Your task to perform on an android device: turn on location history Image 0: 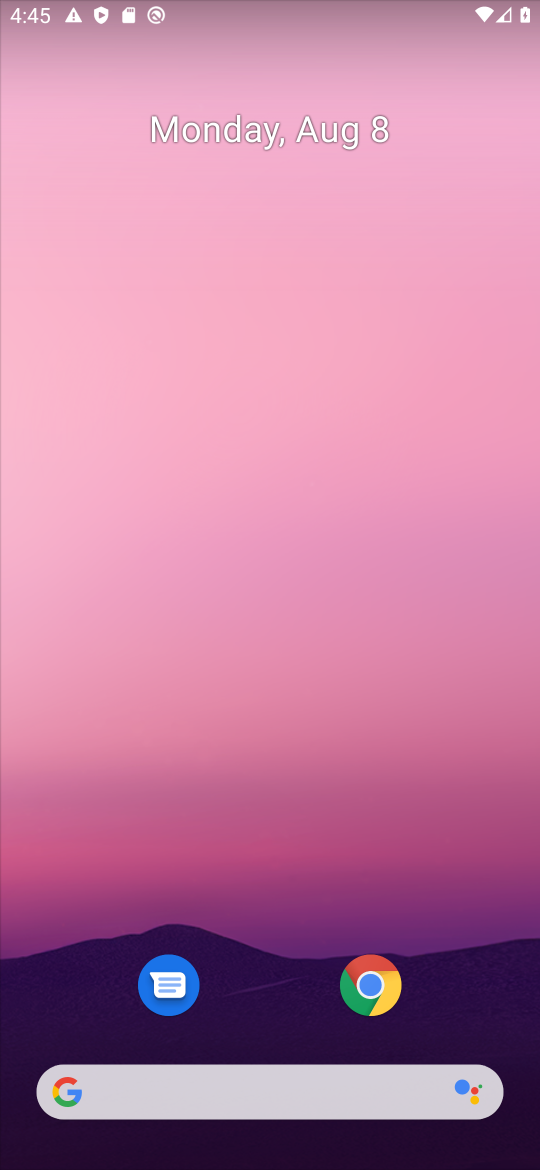
Step 0: drag from (326, 792) to (418, 102)
Your task to perform on an android device: turn on location history Image 1: 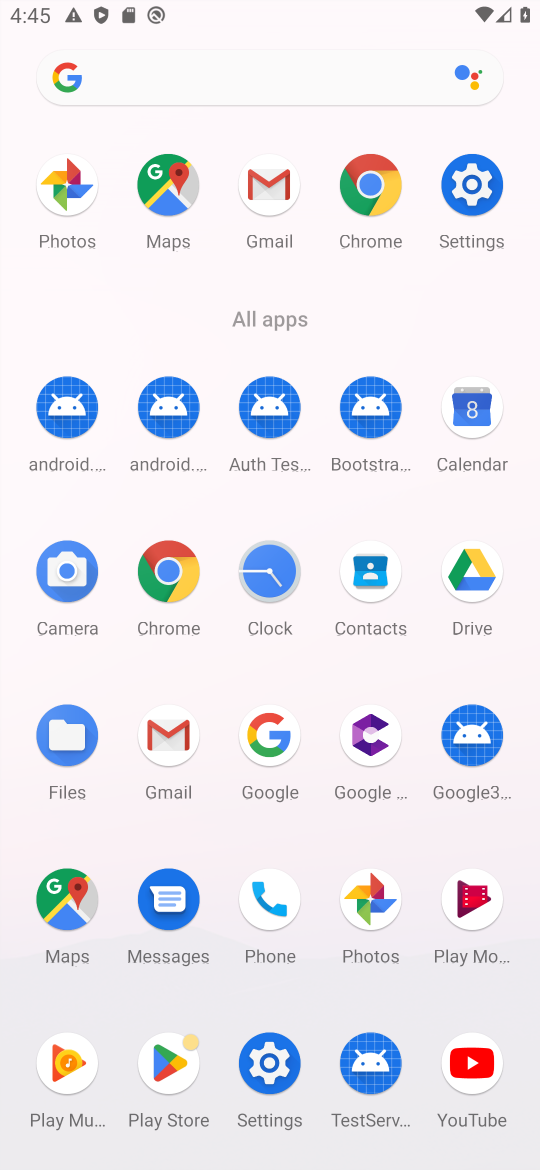
Step 1: click (473, 188)
Your task to perform on an android device: turn on location history Image 2: 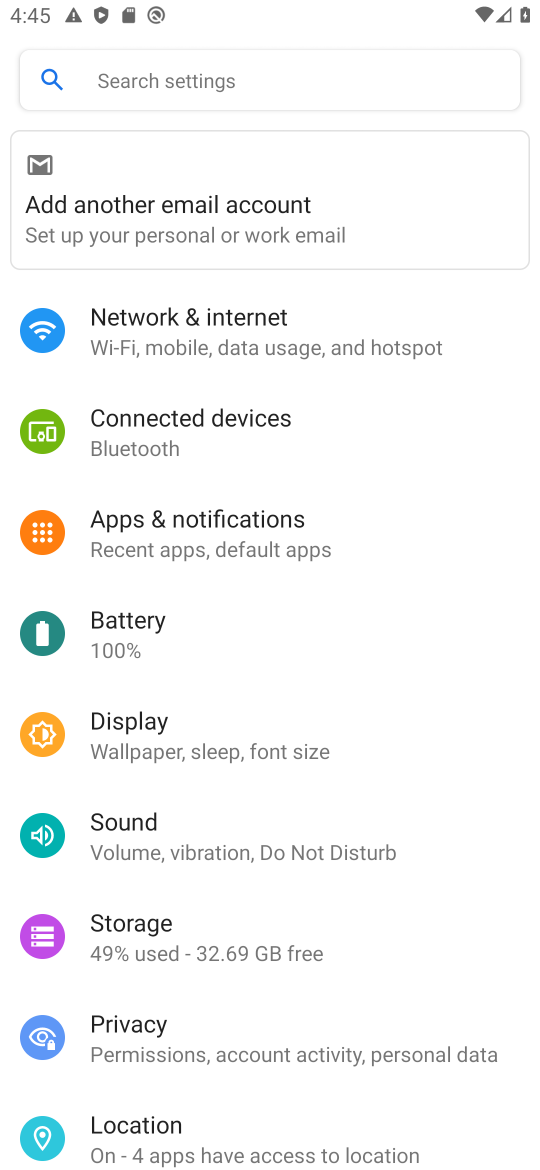
Step 2: click (178, 1133)
Your task to perform on an android device: turn on location history Image 3: 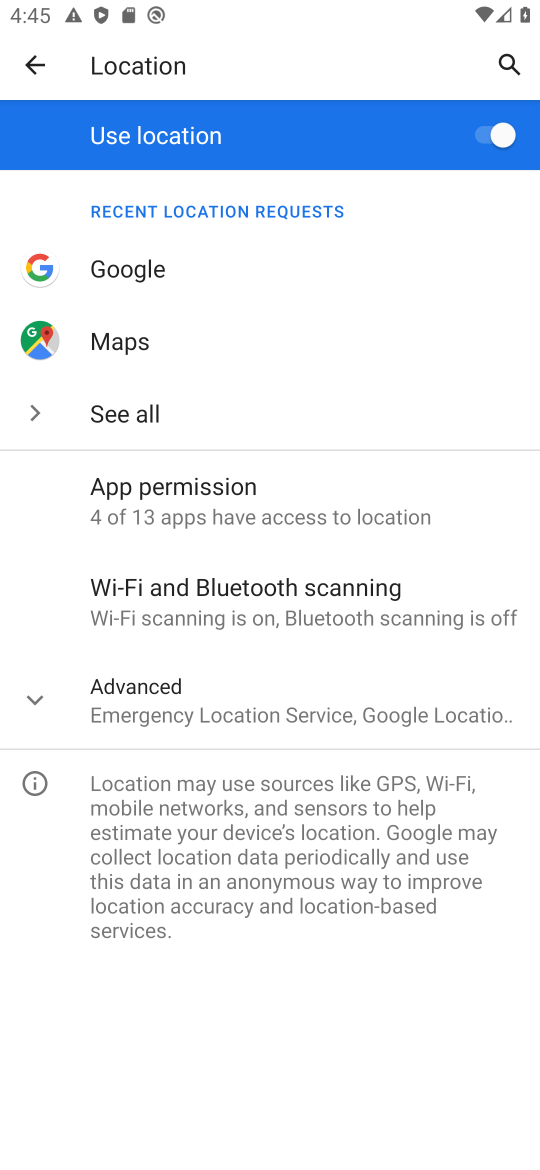
Step 3: task complete